Your task to perform on an android device: Open CNN.com Image 0: 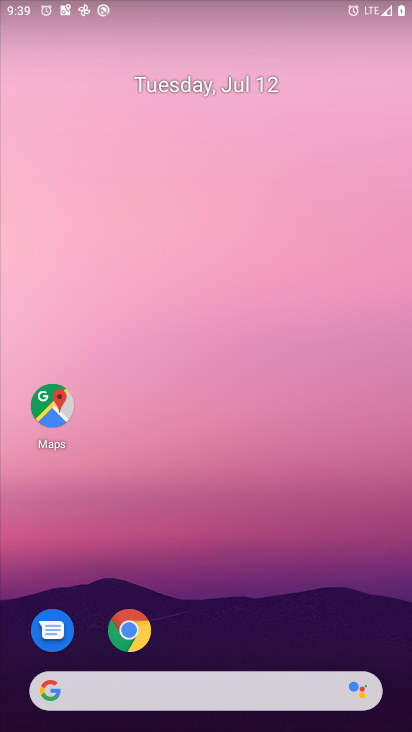
Step 0: type "CNN.com"
Your task to perform on an android device: Open CNN.com Image 1: 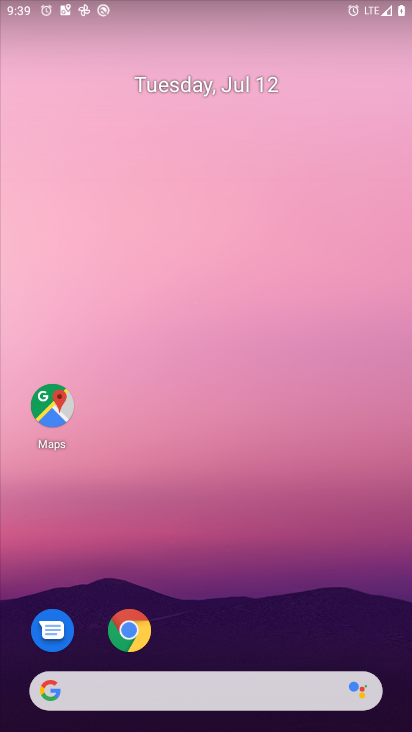
Step 1: click (115, 689)
Your task to perform on an android device: Open CNN.com Image 2: 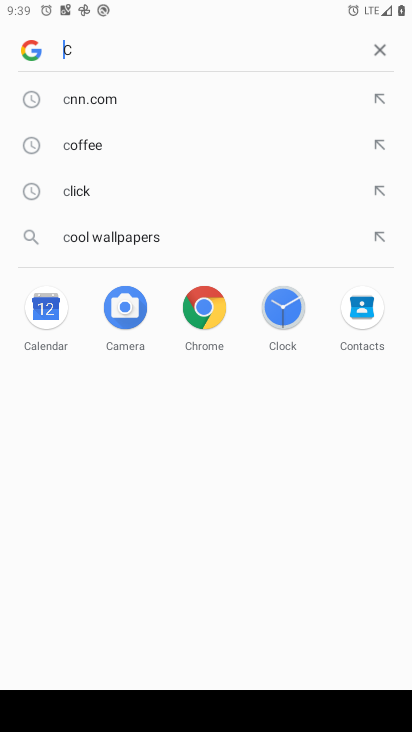
Step 2: click (92, 95)
Your task to perform on an android device: Open CNN.com Image 3: 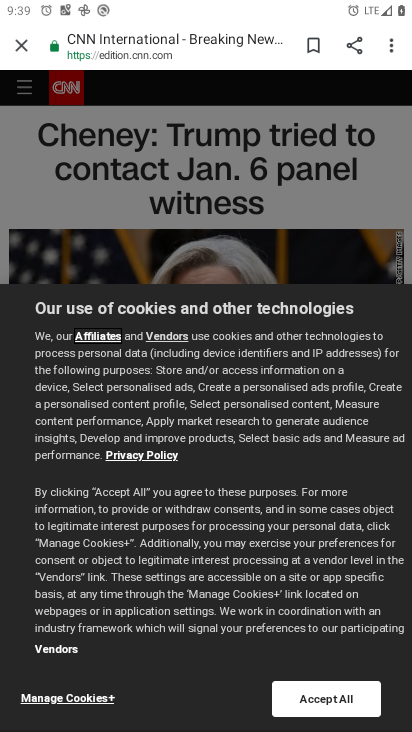
Step 3: task complete